Your task to perform on an android device: open sync settings in chrome Image 0: 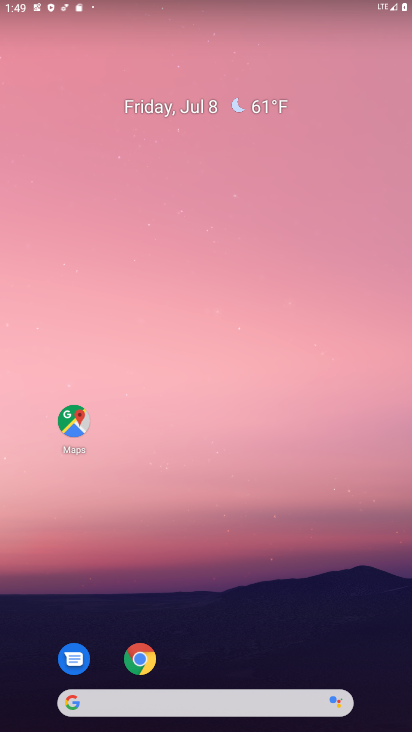
Step 0: click (139, 662)
Your task to perform on an android device: open sync settings in chrome Image 1: 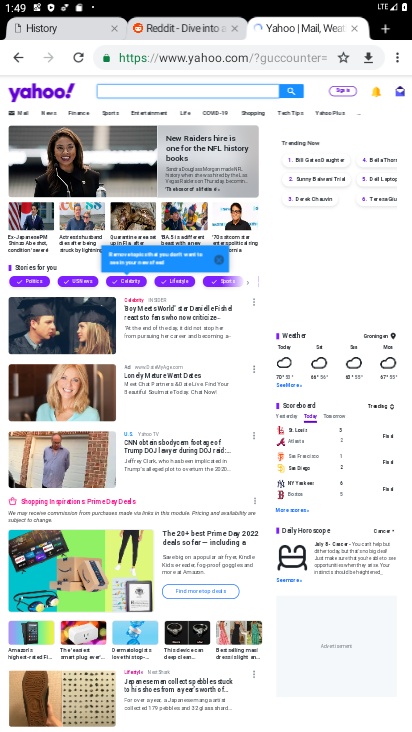
Step 1: click (396, 57)
Your task to perform on an android device: open sync settings in chrome Image 2: 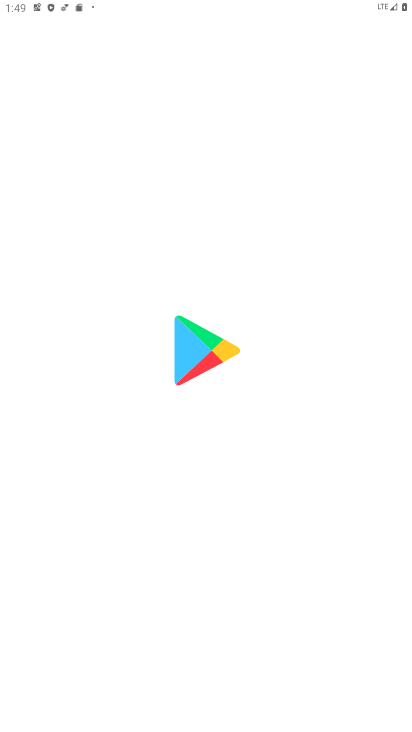
Step 2: click (396, 57)
Your task to perform on an android device: open sync settings in chrome Image 3: 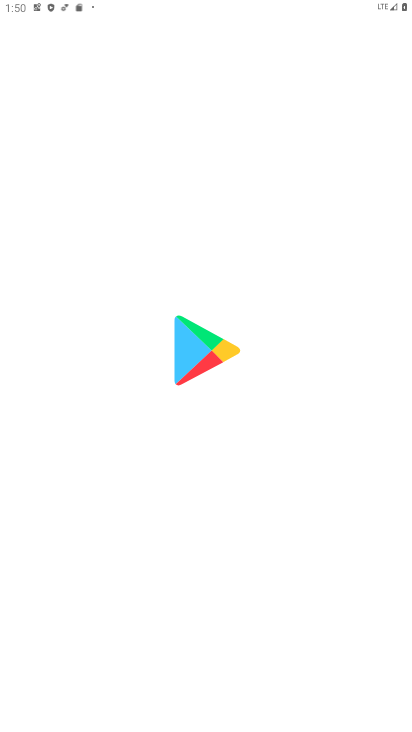
Step 3: press back button
Your task to perform on an android device: open sync settings in chrome Image 4: 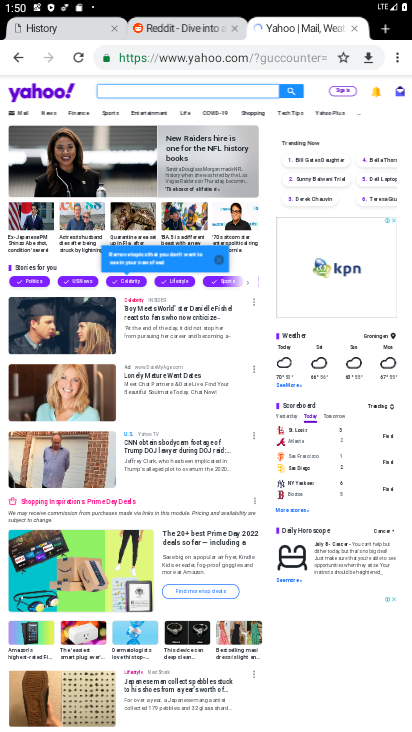
Step 4: drag from (396, 56) to (286, 425)
Your task to perform on an android device: open sync settings in chrome Image 5: 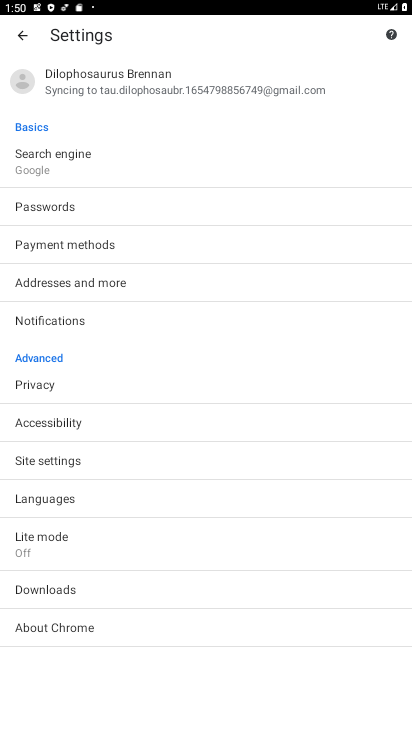
Step 5: click (68, 88)
Your task to perform on an android device: open sync settings in chrome Image 6: 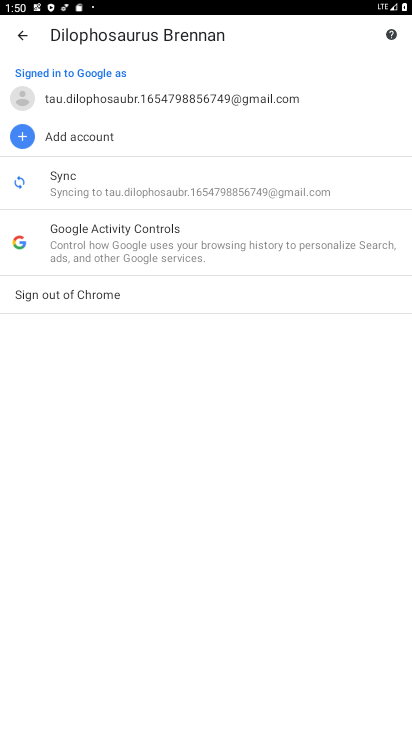
Step 6: click (75, 179)
Your task to perform on an android device: open sync settings in chrome Image 7: 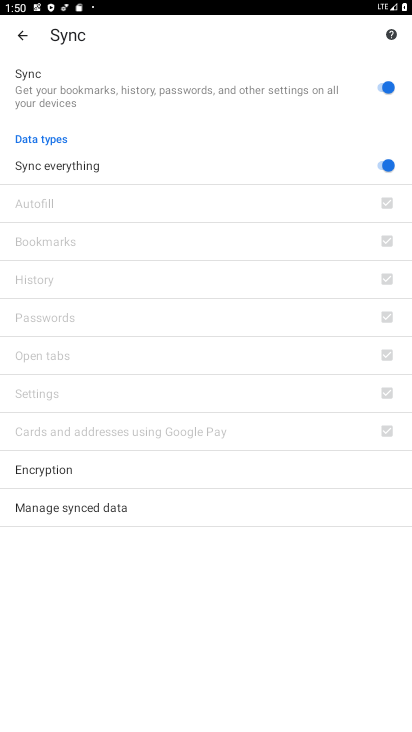
Step 7: task complete